Your task to perform on an android device: turn on translation in the chrome app Image 0: 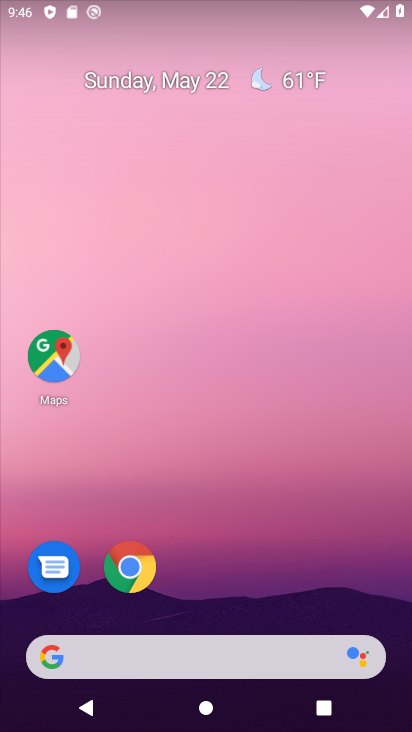
Step 0: click (147, 574)
Your task to perform on an android device: turn on translation in the chrome app Image 1: 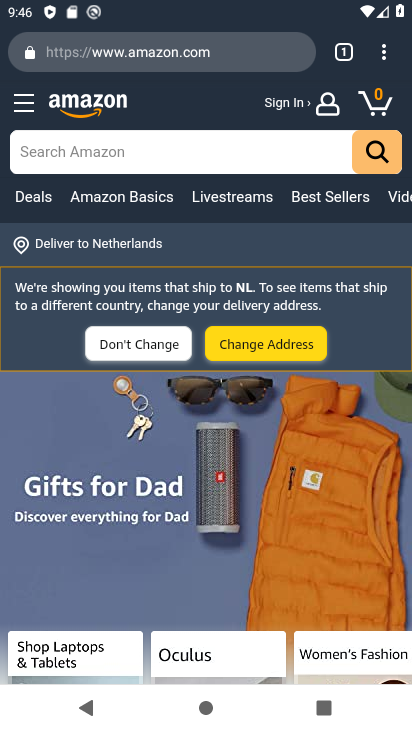
Step 1: click (385, 46)
Your task to perform on an android device: turn on translation in the chrome app Image 2: 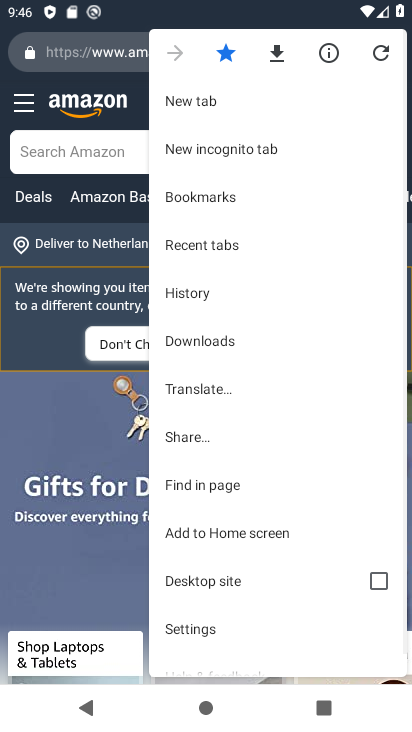
Step 2: click (202, 630)
Your task to perform on an android device: turn on translation in the chrome app Image 3: 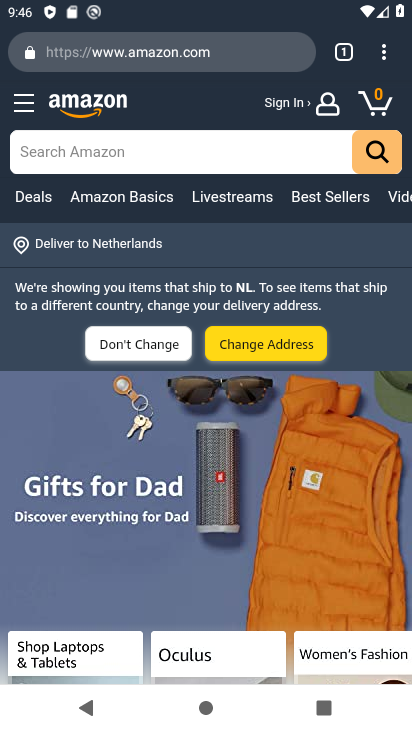
Step 3: drag from (202, 630) to (121, 210)
Your task to perform on an android device: turn on translation in the chrome app Image 4: 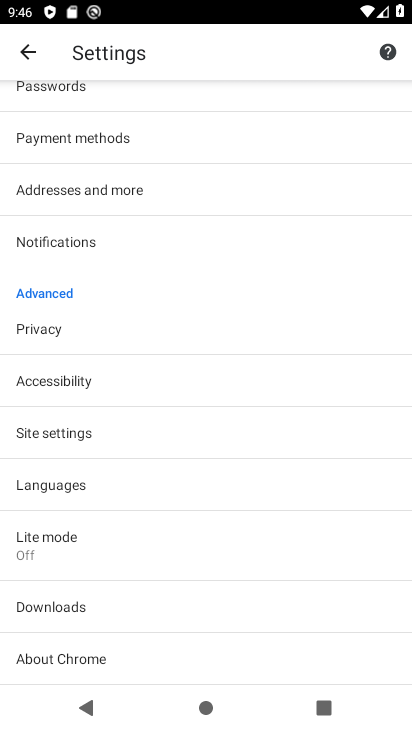
Step 4: click (75, 488)
Your task to perform on an android device: turn on translation in the chrome app Image 5: 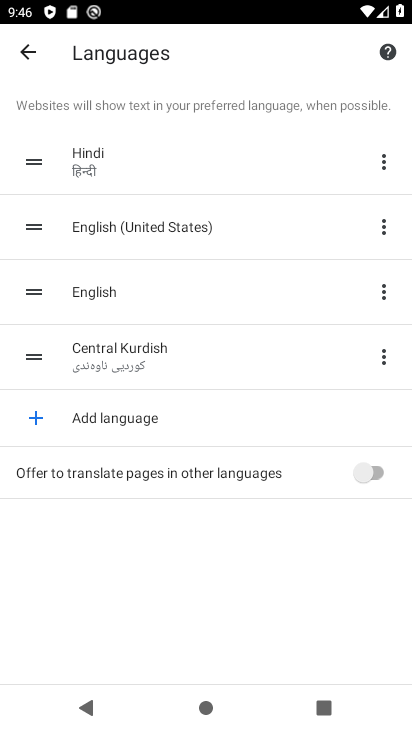
Step 5: click (374, 467)
Your task to perform on an android device: turn on translation in the chrome app Image 6: 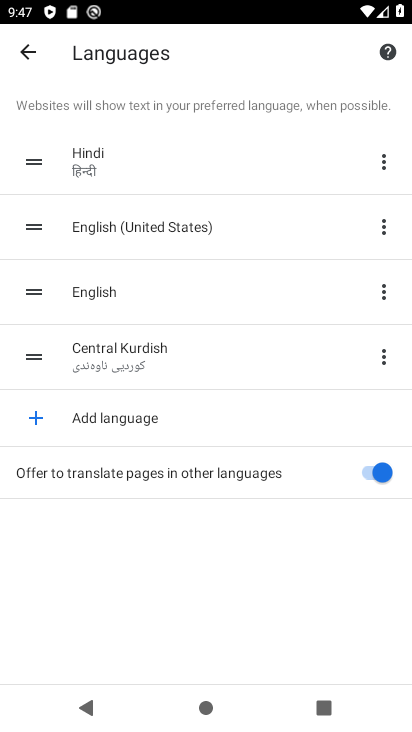
Step 6: task complete